Your task to perform on an android device: set the timer Image 0: 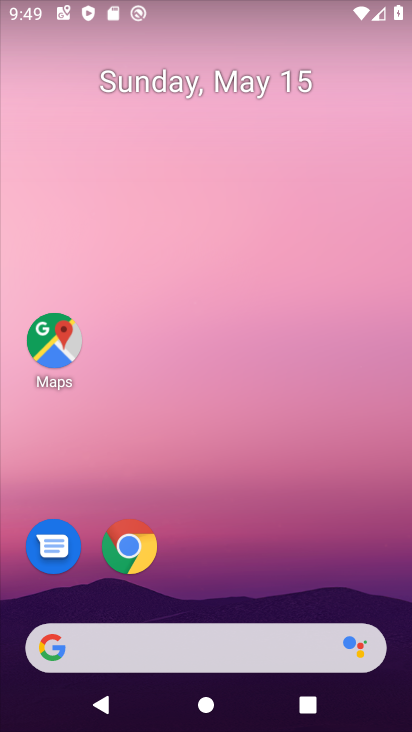
Step 0: drag from (300, 552) to (387, 90)
Your task to perform on an android device: set the timer Image 1: 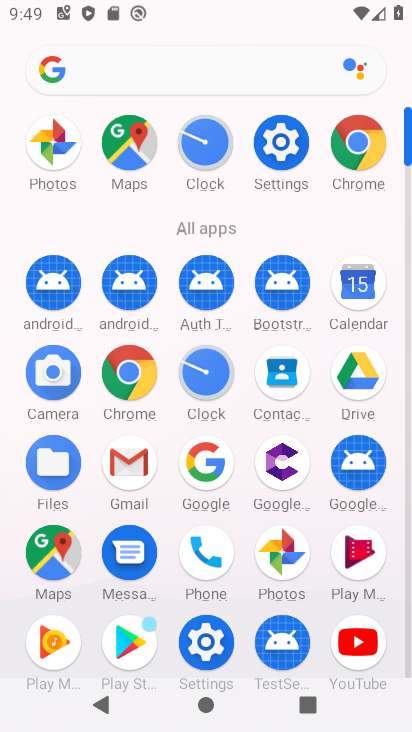
Step 1: click (200, 378)
Your task to perform on an android device: set the timer Image 2: 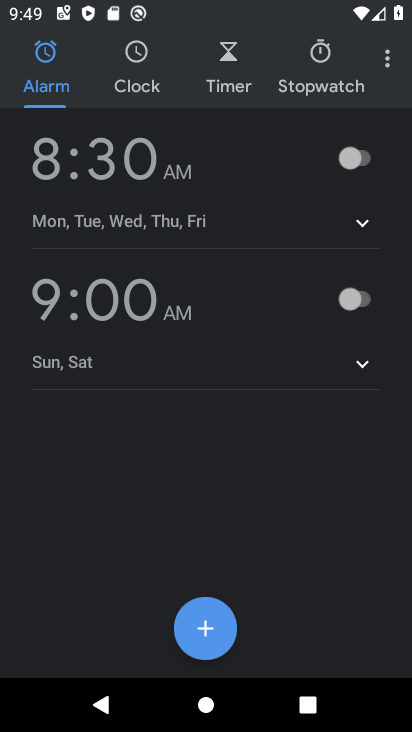
Step 2: click (239, 67)
Your task to perform on an android device: set the timer Image 3: 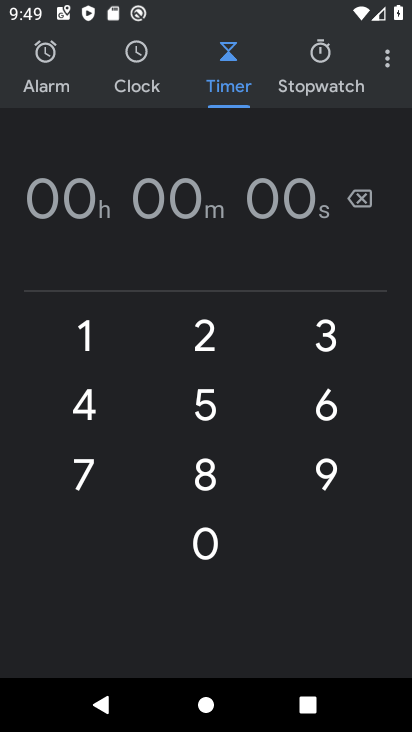
Step 3: click (213, 397)
Your task to perform on an android device: set the timer Image 4: 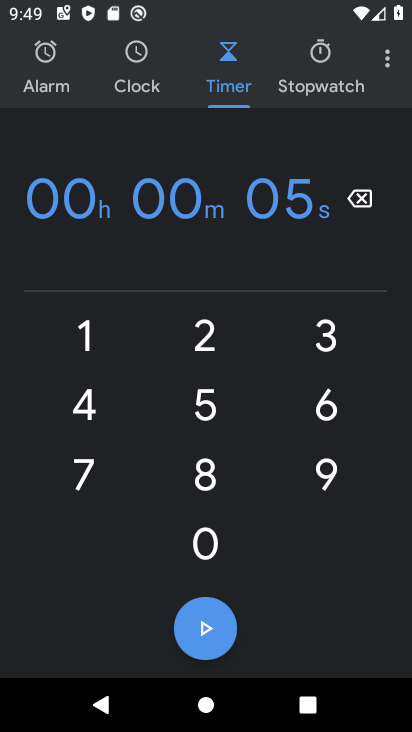
Step 4: task complete